Your task to perform on an android device: Go to location settings Image 0: 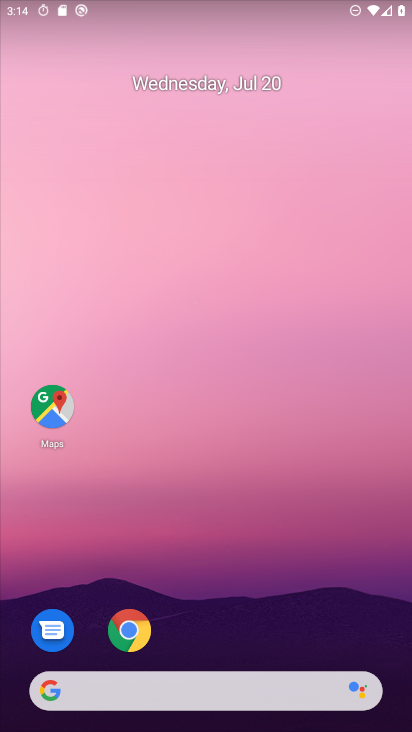
Step 0: click (266, 262)
Your task to perform on an android device: Go to location settings Image 1: 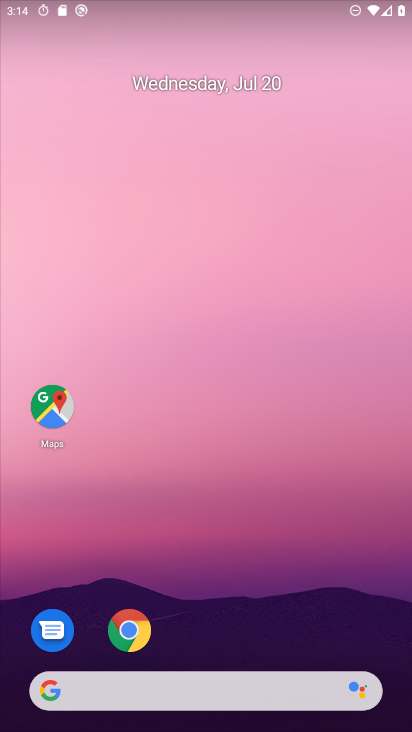
Step 1: drag from (272, 668) to (300, 157)
Your task to perform on an android device: Go to location settings Image 2: 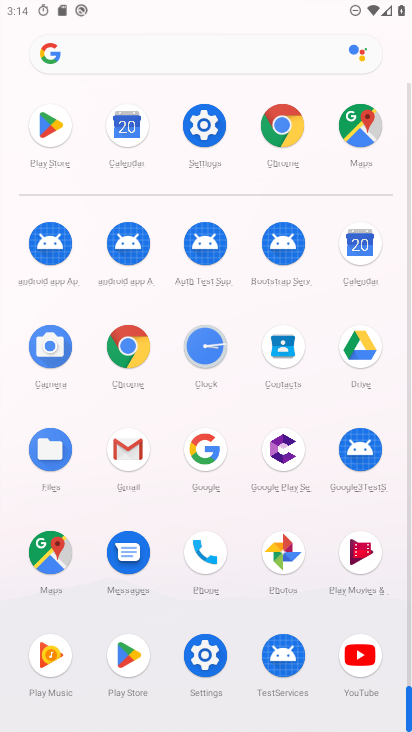
Step 2: click (205, 656)
Your task to perform on an android device: Go to location settings Image 3: 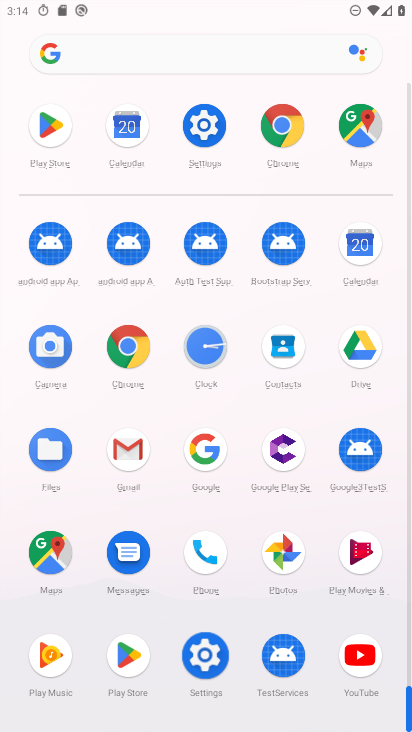
Step 3: click (205, 656)
Your task to perform on an android device: Go to location settings Image 4: 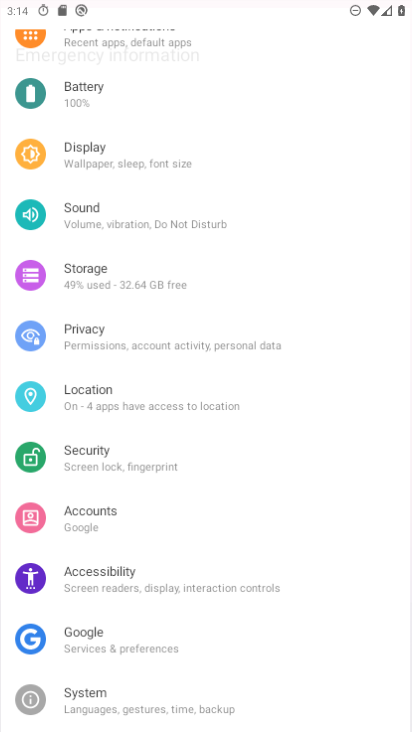
Step 4: click (207, 649)
Your task to perform on an android device: Go to location settings Image 5: 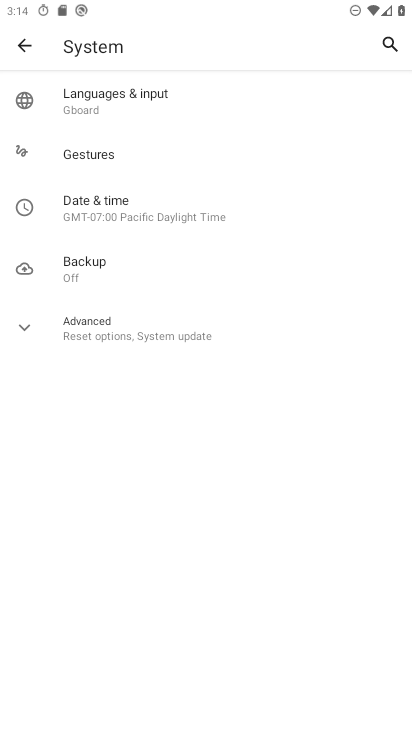
Step 5: click (22, 43)
Your task to perform on an android device: Go to location settings Image 6: 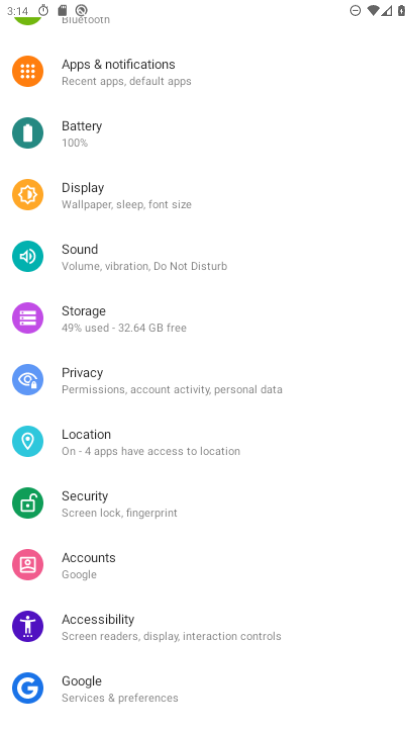
Step 6: click (22, 43)
Your task to perform on an android device: Go to location settings Image 7: 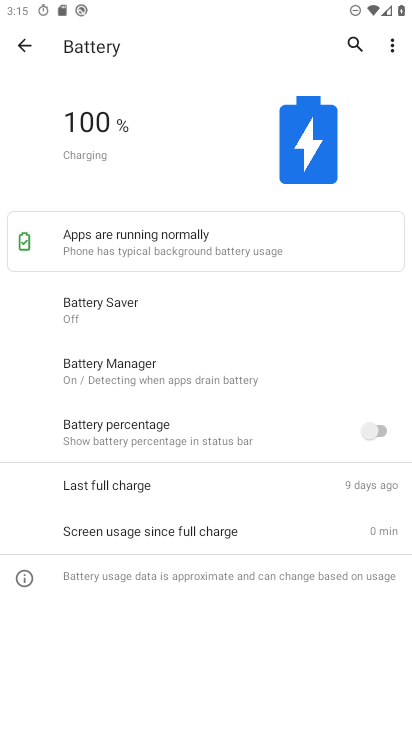
Step 7: click (91, 345)
Your task to perform on an android device: Go to location settings Image 8: 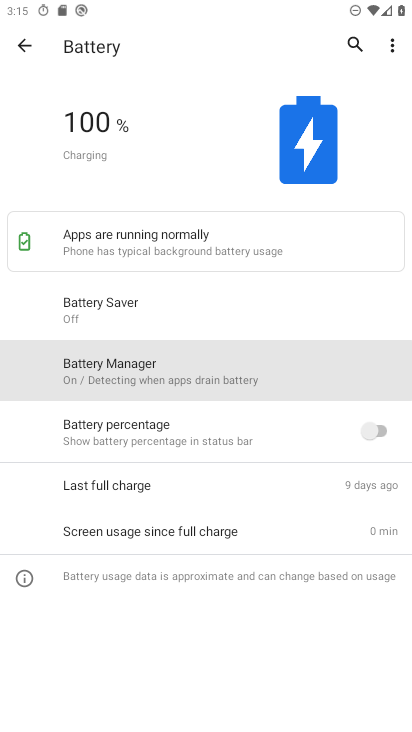
Step 8: click (100, 334)
Your task to perform on an android device: Go to location settings Image 9: 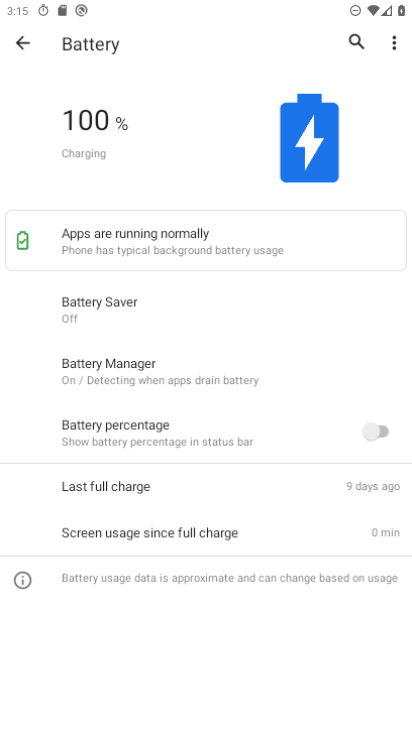
Step 9: click (103, 333)
Your task to perform on an android device: Go to location settings Image 10: 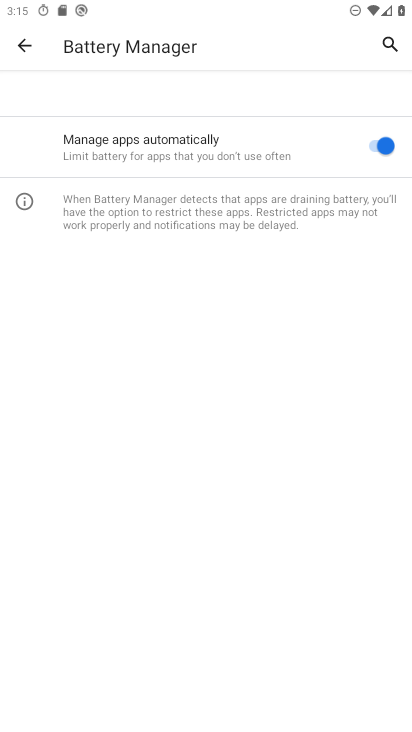
Step 10: click (103, 333)
Your task to perform on an android device: Go to location settings Image 11: 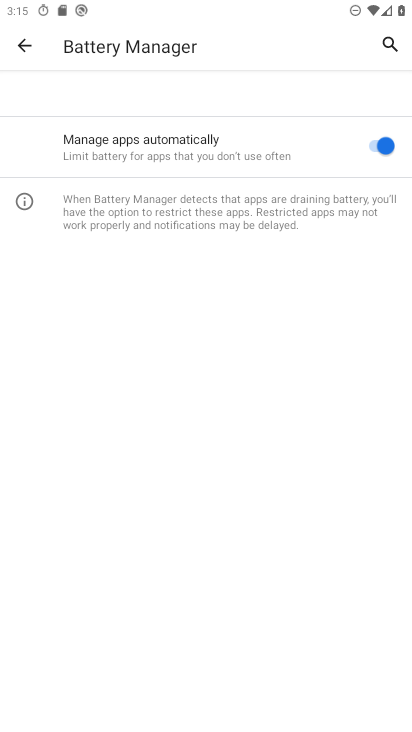
Step 11: click (24, 58)
Your task to perform on an android device: Go to location settings Image 12: 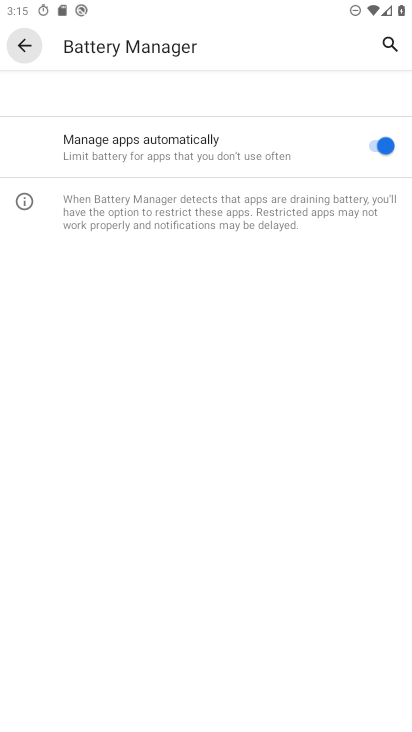
Step 12: click (25, 54)
Your task to perform on an android device: Go to location settings Image 13: 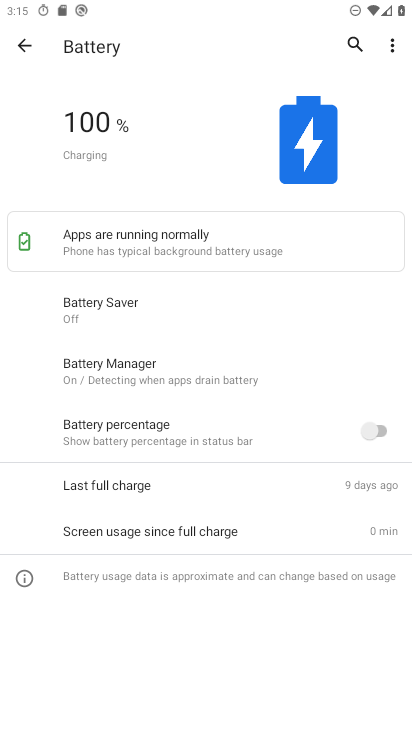
Step 13: click (17, 39)
Your task to perform on an android device: Go to location settings Image 14: 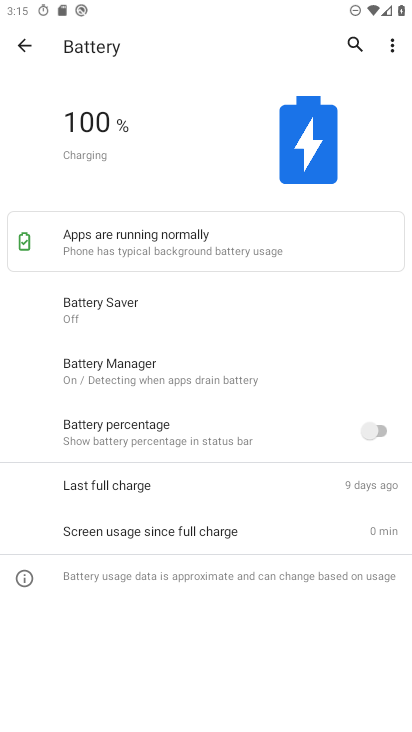
Step 14: click (19, 41)
Your task to perform on an android device: Go to location settings Image 15: 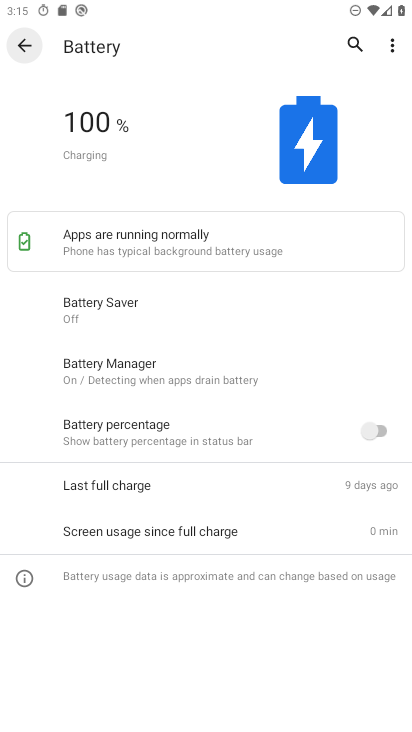
Step 15: click (19, 41)
Your task to perform on an android device: Go to location settings Image 16: 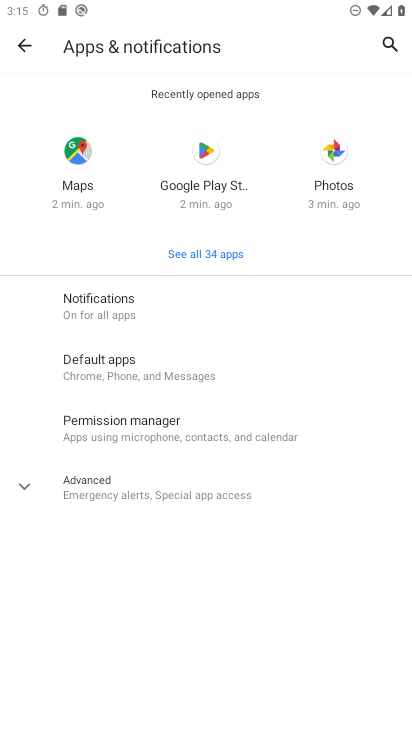
Step 16: click (21, 40)
Your task to perform on an android device: Go to location settings Image 17: 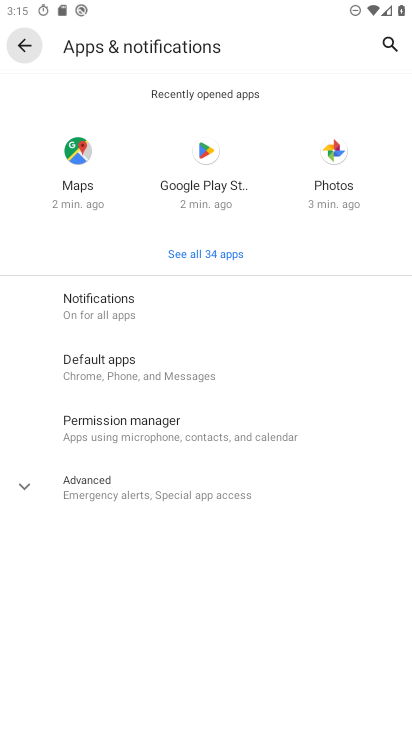
Step 17: click (22, 40)
Your task to perform on an android device: Go to location settings Image 18: 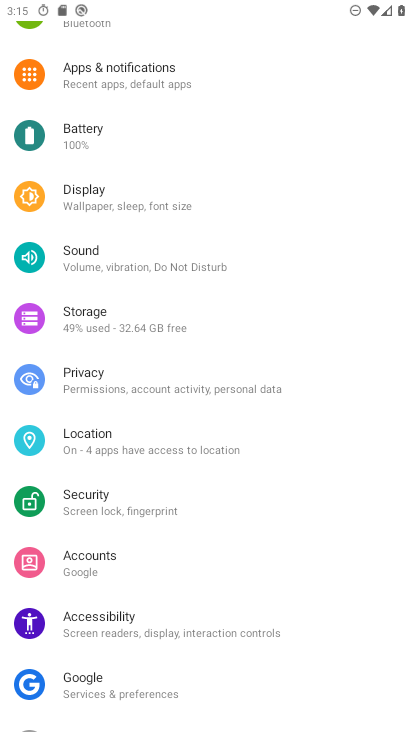
Step 18: click (112, 433)
Your task to perform on an android device: Go to location settings Image 19: 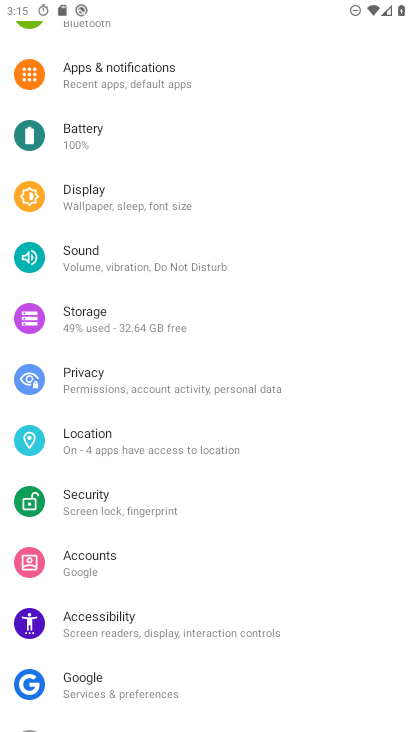
Step 19: click (112, 433)
Your task to perform on an android device: Go to location settings Image 20: 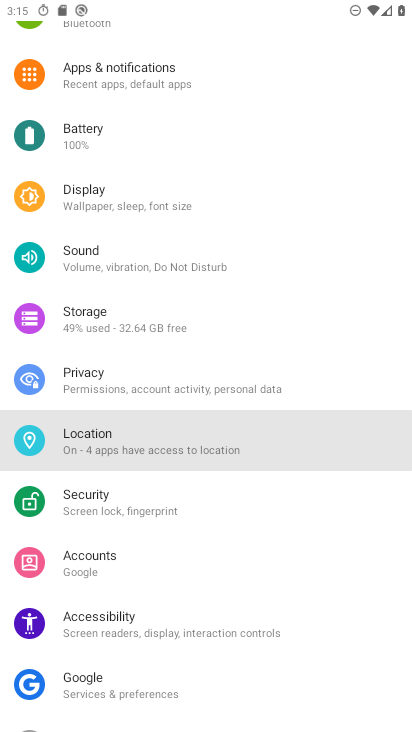
Step 20: click (113, 438)
Your task to perform on an android device: Go to location settings Image 21: 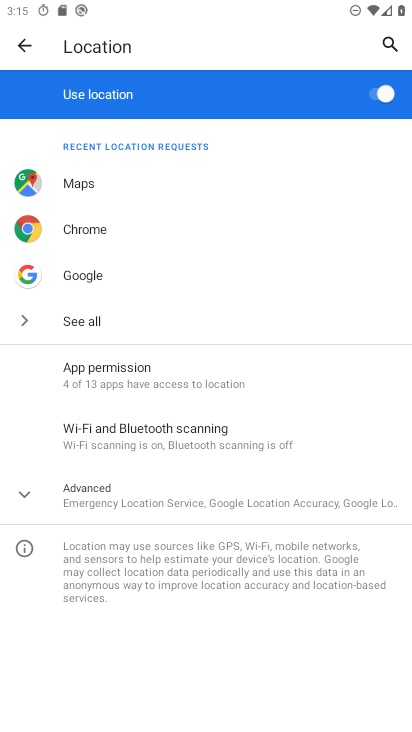
Step 21: task complete